Your task to perform on an android device: Open ESPN.com Image 0: 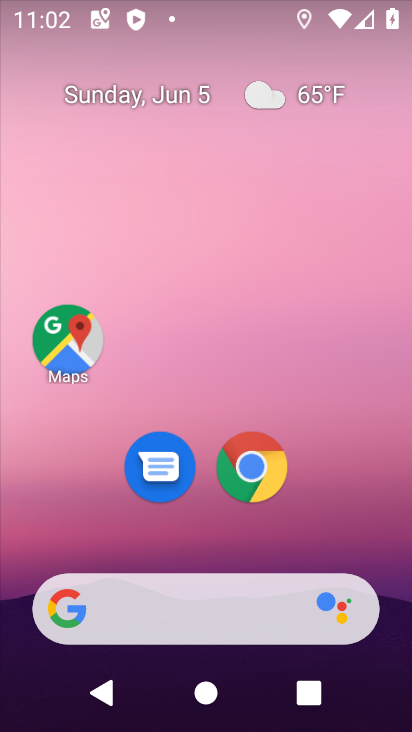
Step 0: press home button
Your task to perform on an android device: Open ESPN.com Image 1: 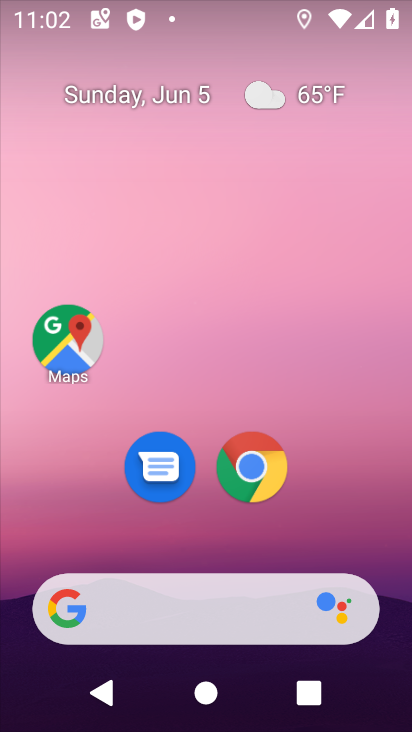
Step 1: press home button
Your task to perform on an android device: Open ESPN.com Image 2: 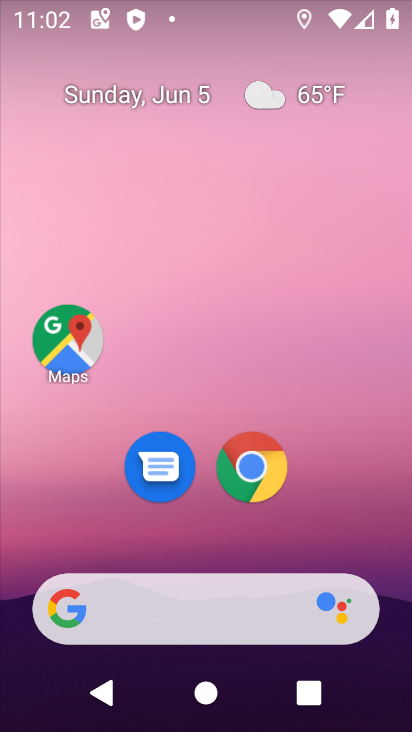
Step 2: click (268, 480)
Your task to perform on an android device: Open ESPN.com Image 3: 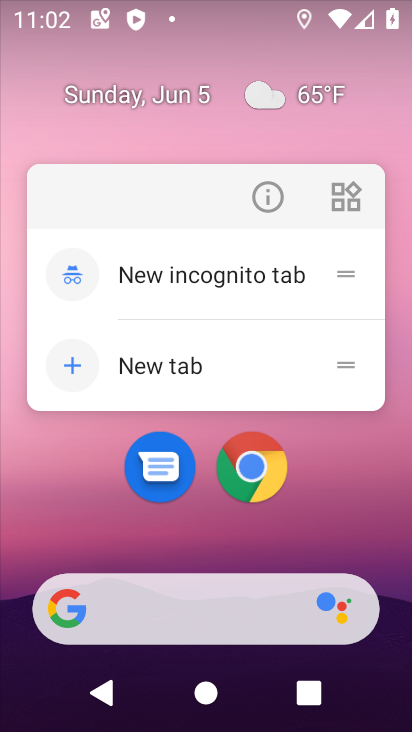
Step 3: click (268, 480)
Your task to perform on an android device: Open ESPN.com Image 4: 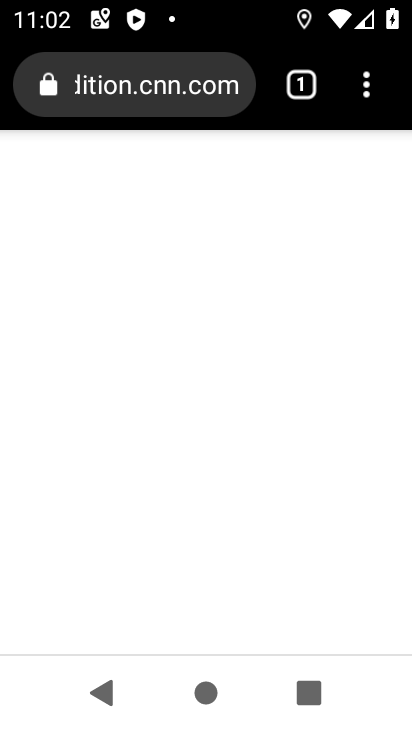
Step 4: press back button
Your task to perform on an android device: Open ESPN.com Image 5: 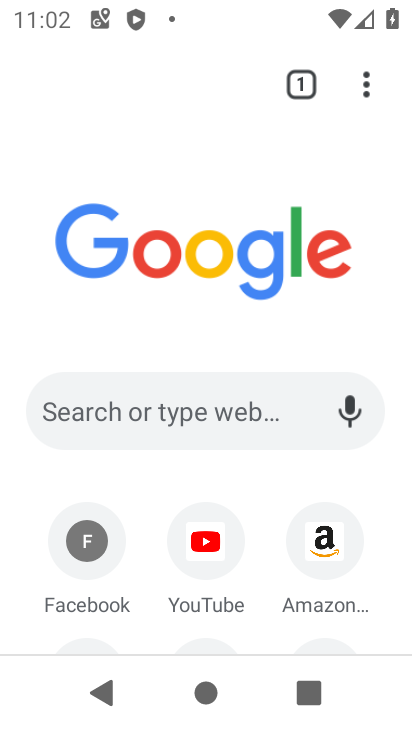
Step 5: drag from (215, 479) to (340, 84)
Your task to perform on an android device: Open ESPN.com Image 6: 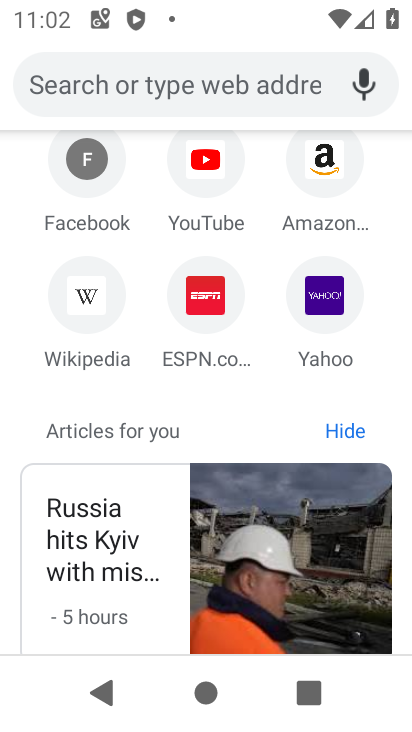
Step 6: click (194, 301)
Your task to perform on an android device: Open ESPN.com Image 7: 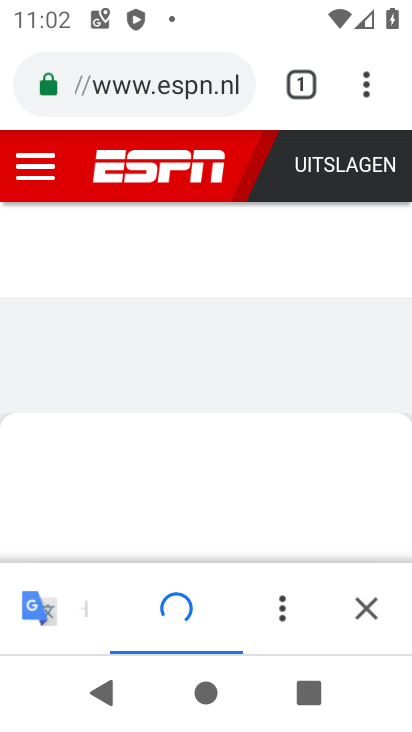
Step 7: task complete